Your task to perform on an android device: toggle data saver in the chrome app Image 0: 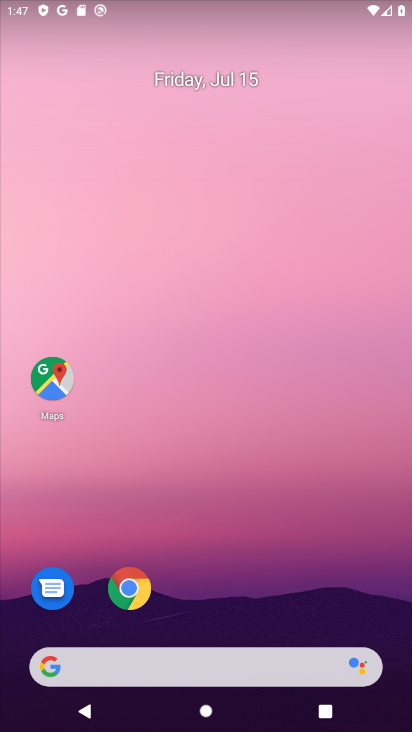
Step 0: click (153, 593)
Your task to perform on an android device: toggle data saver in the chrome app Image 1: 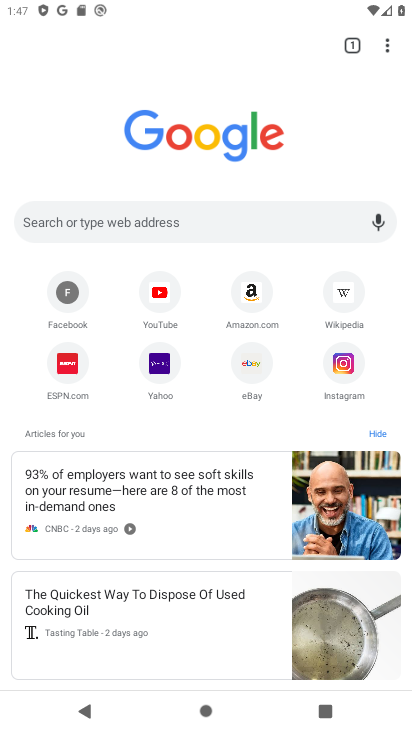
Step 1: click (392, 52)
Your task to perform on an android device: toggle data saver in the chrome app Image 2: 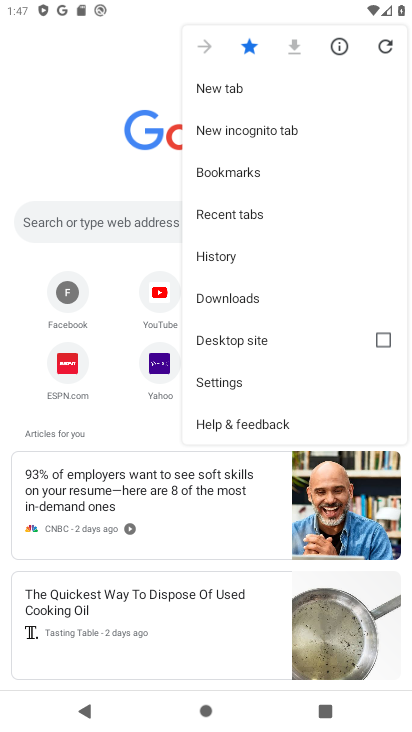
Step 2: click (289, 381)
Your task to perform on an android device: toggle data saver in the chrome app Image 3: 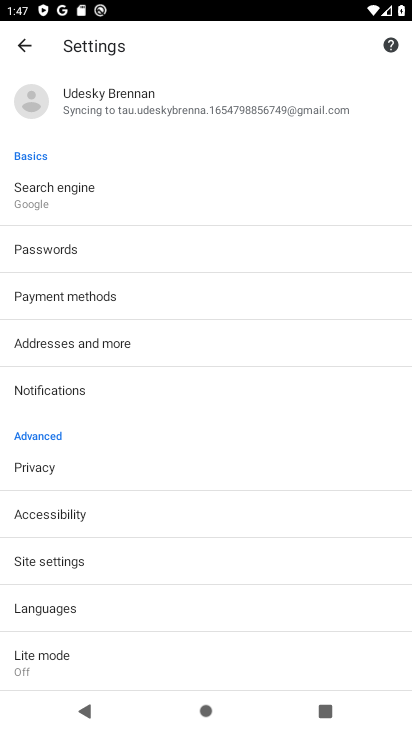
Step 3: drag from (247, 566) to (248, 325)
Your task to perform on an android device: toggle data saver in the chrome app Image 4: 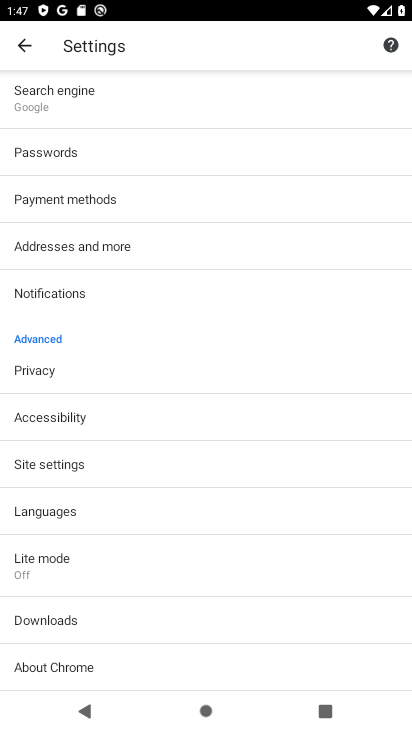
Step 4: drag from (210, 488) to (191, 382)
Your task to perform on an android device: toggle data saver in the chrome app Image 5: 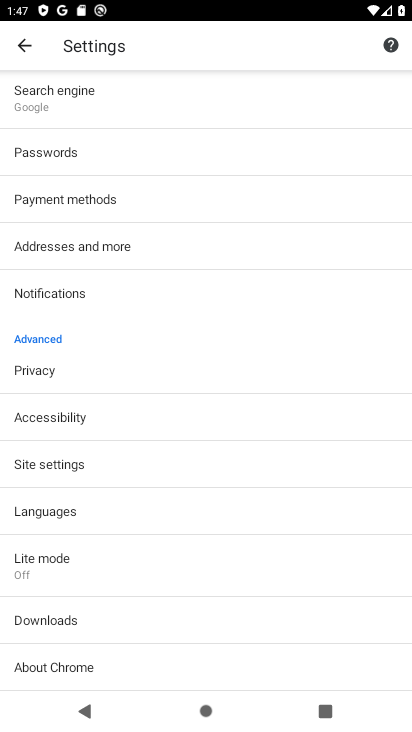
Step 5: click (177, 582)
Your task to perform on an android device: toggle data saver in the chrome app Image 6: 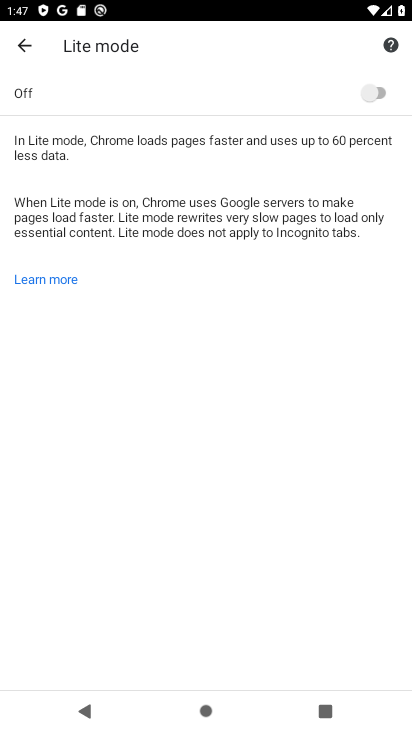
Step 6: click (395, 93)
Your task to perform on an android device: toggle data saver in the chrome app Image 7: 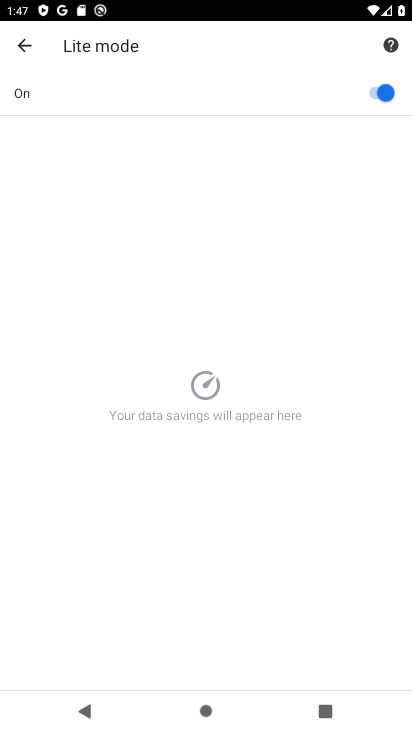
Step 7: task complete